Your task to perform on an android device: Open the phone app and click the voicemail tab. Image 0: 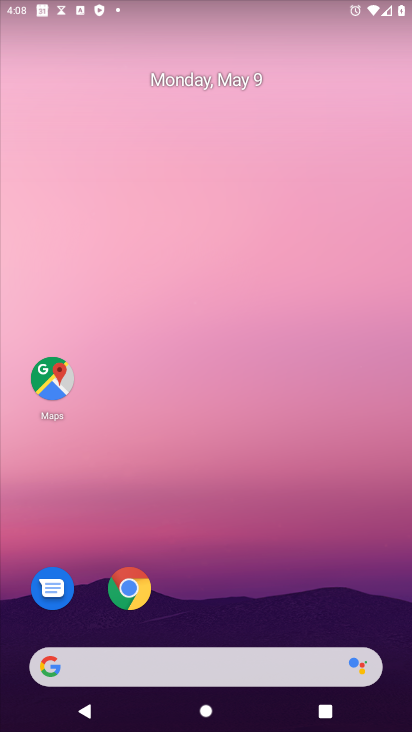
Step 0: drag from (284, 585) to (189, 47)
Your task to perform on an android device: Open the phone app and click the voicemail tab. Image 1: 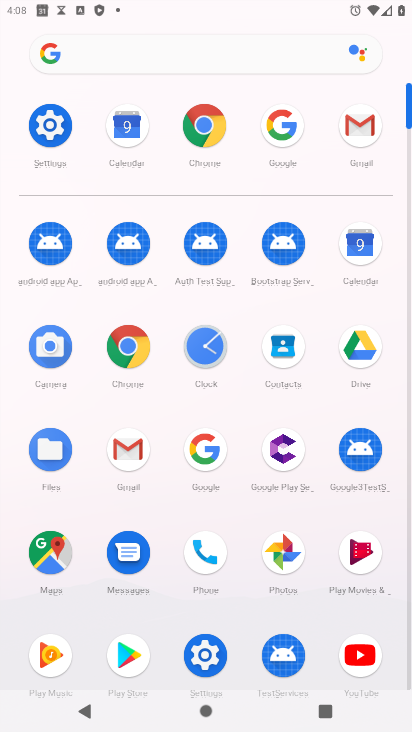
Step 1: click (211, 550)
Your task to perform on an android device: Open the phone app and click the voicemail tab. Image 2: 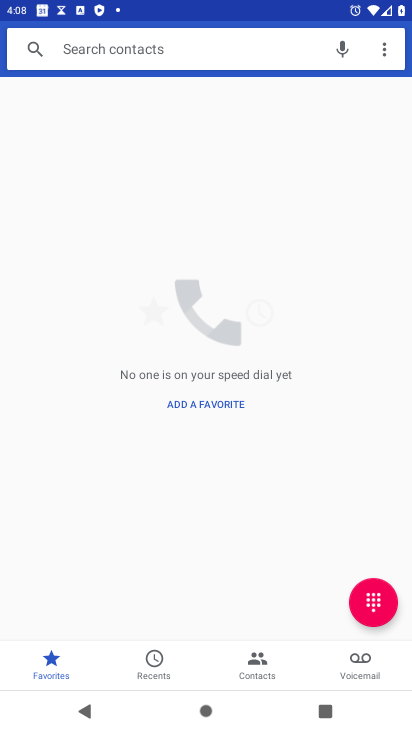
Step 2: click (363, 658)
Your task to perform on an android device: Open the phone app and click the voicemail tab. Image 3: 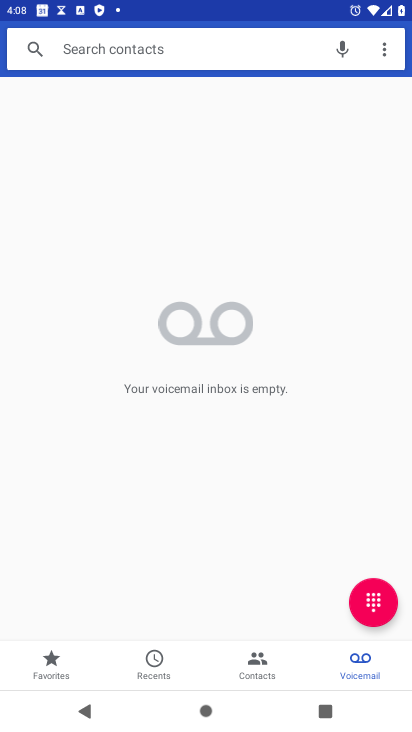
Step 3: task complete